Your task to perform on an android device: Open the map Image 0: 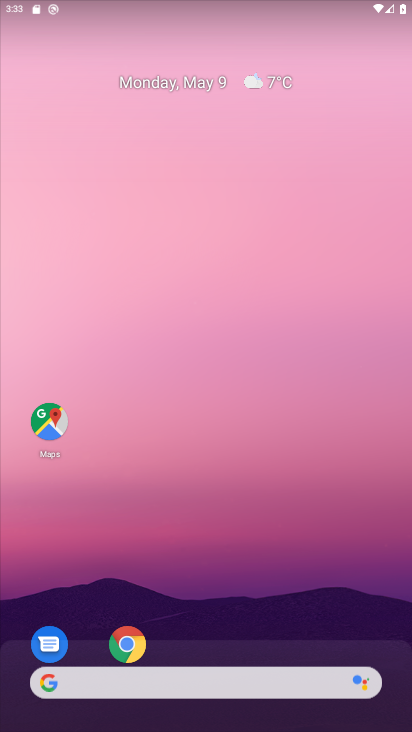
Step 0: click (52, 430)
Your task to perform on an android device: Open the map Image 1: 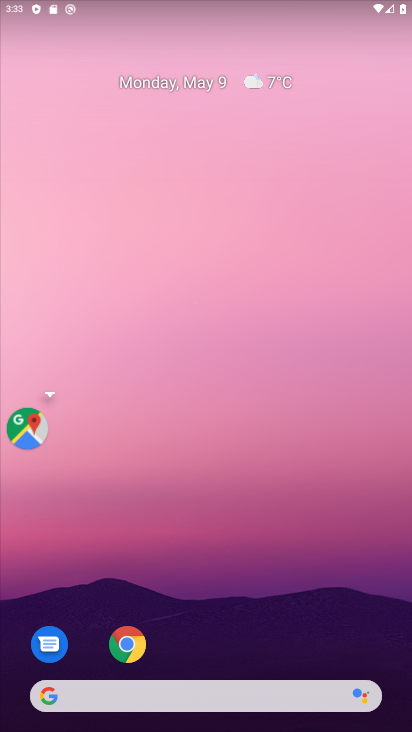
Step 1: click (55, 417)
Your task to perform on an android device: Open the map Image 2: 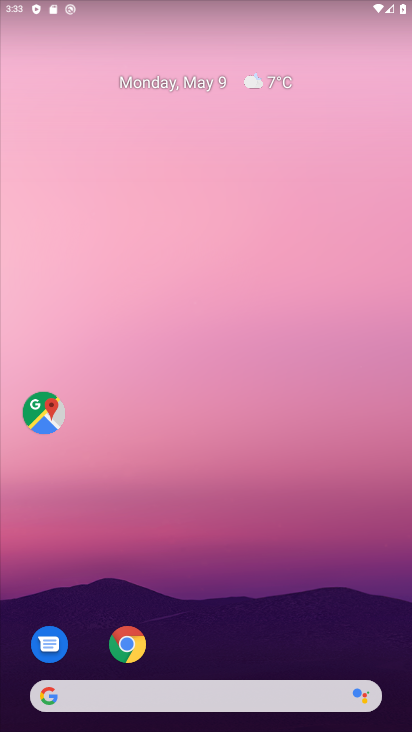
Step 2: click (56, 412)
Your task to perform on an android device: Open the map Image 3: 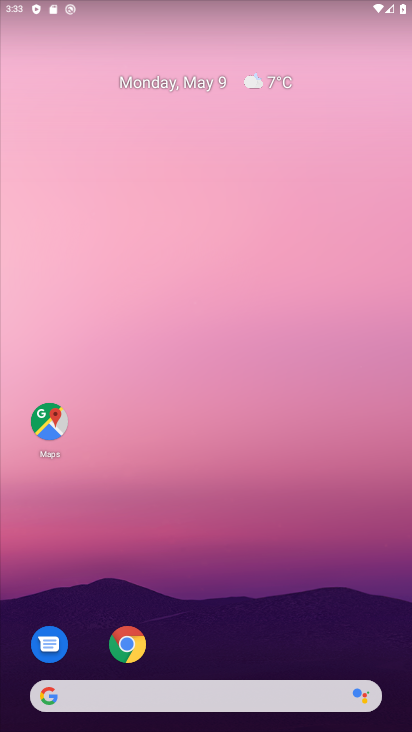
Step 3: click (52, 411)
Your task to perform on an android device: Open the map Image 4: 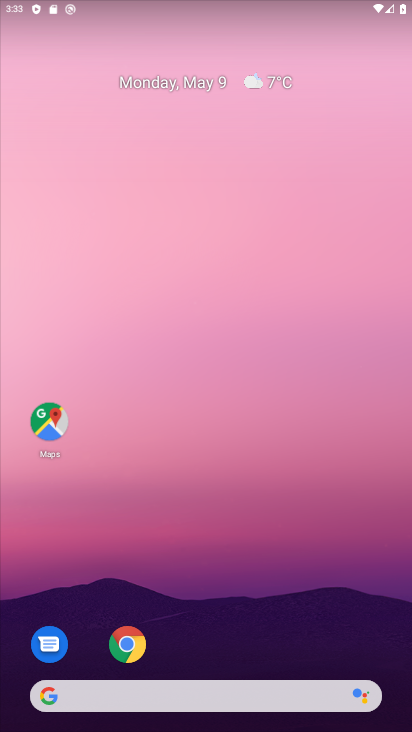
Step 4: click (55, 411)
Your task to perform on an android device: Open the map Image 5: 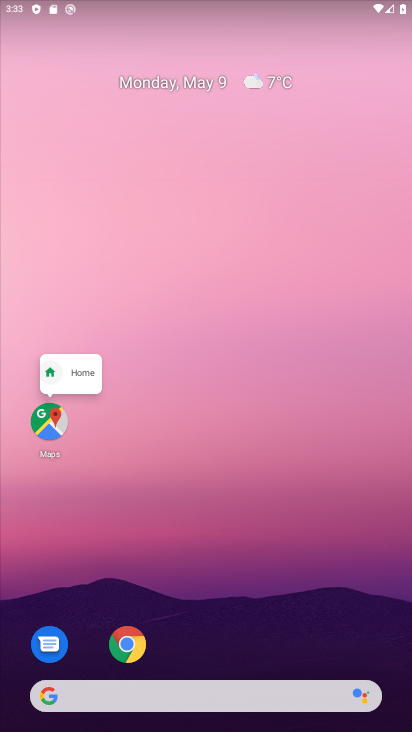
Step 5: click (54, 418)
Your task to perform on an android device: Open the map Image 6: 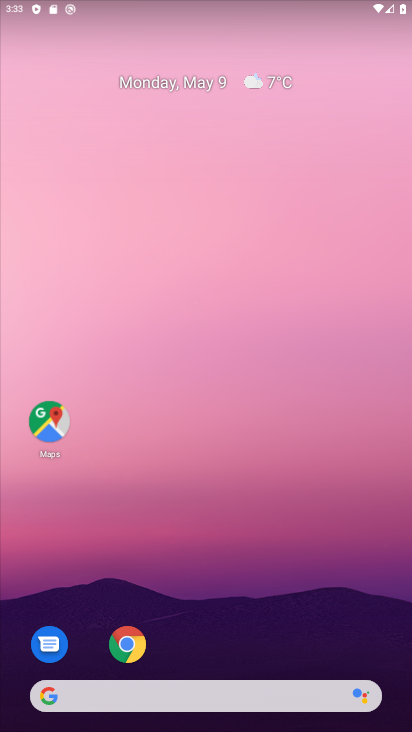
Step 6: click (53, 421)
Your task to perform on an android device: Open the map Image 7: 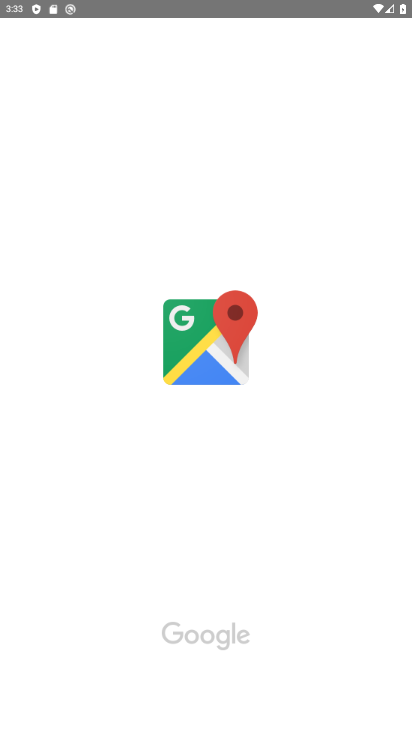
Step 7: click (48, 415)
Your task to perform on an android device: Open the map Image 8: 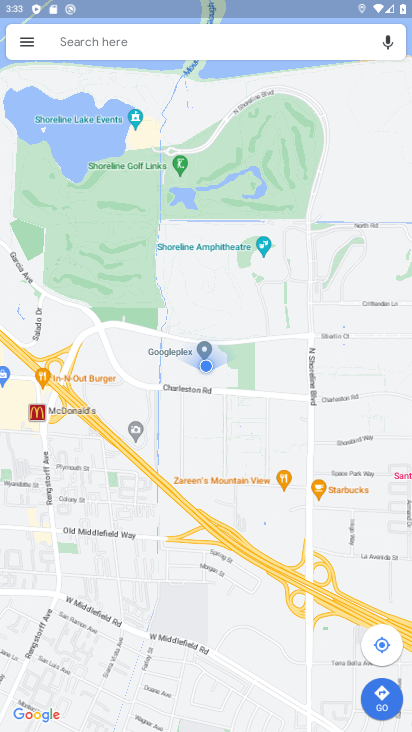
Step 8: task complete